Your task to perform on an android device: check google app version Image 0: 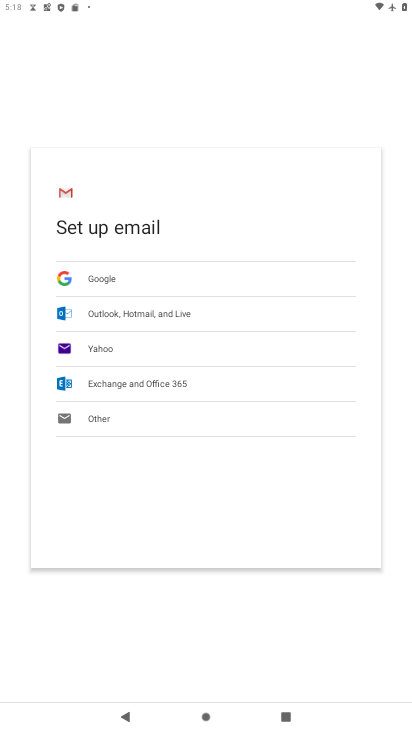
Step 0: press home button
Your task to perform on an android device: check google app version Image 1: 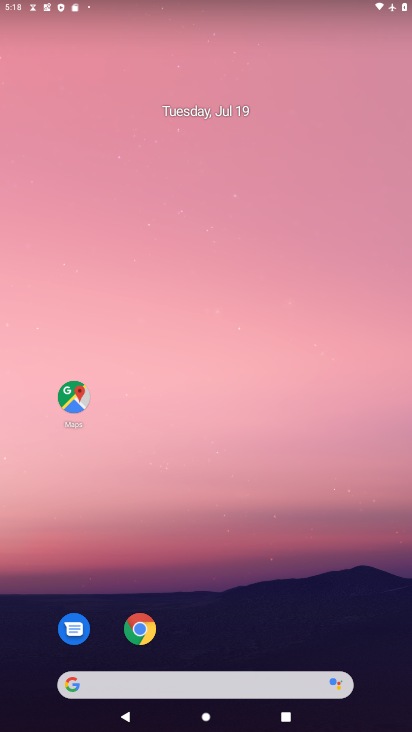
Step 1: drag from (197, 661) to (191, 99)
Your task to perform on an android device: check google app version Image 2: 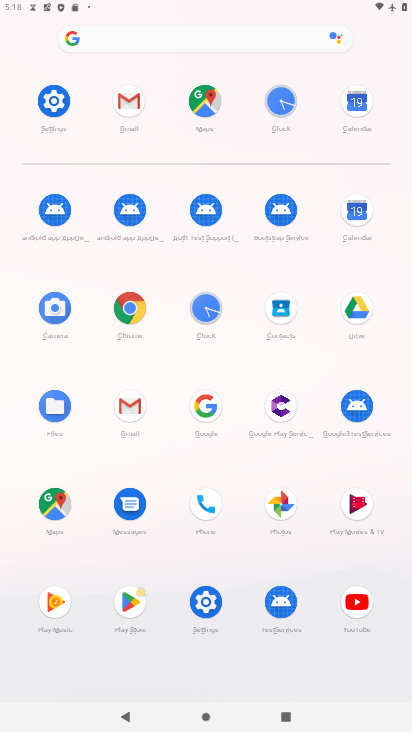
Step 2: click (202, 409)
Your task to perform on an android device: check google app version Image 3: 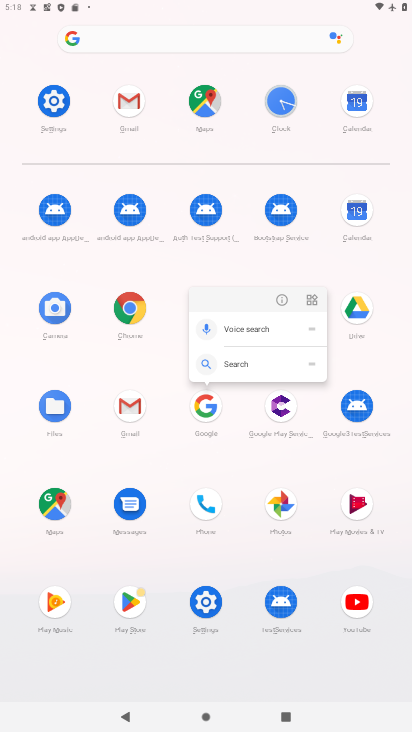
Step 3: click (284, 302)
Your task to perform on an android device: check google app version Image 4: 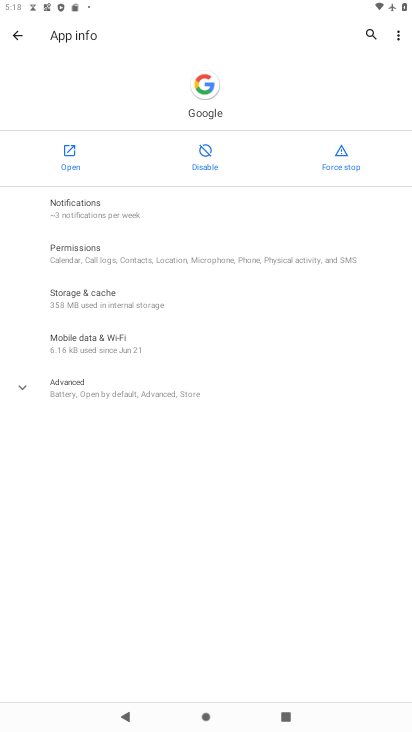
Step 4: click (73, 385)
Your task to perform on an android device: check google app version Image 5: 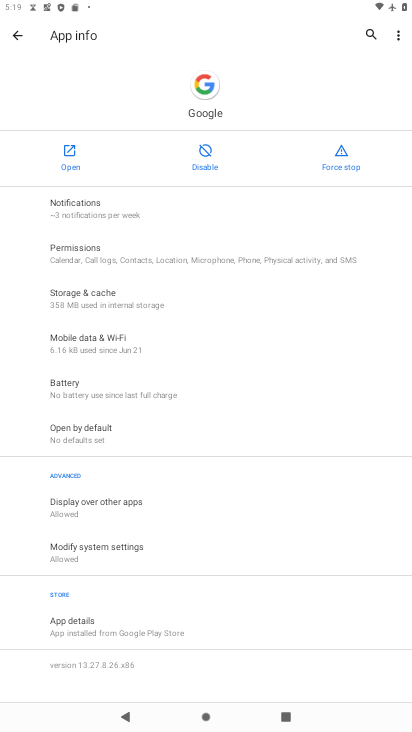
Step 5: task complete